Your task to perform on an android device: Open Youtube and go to "Your channel" Image 0: 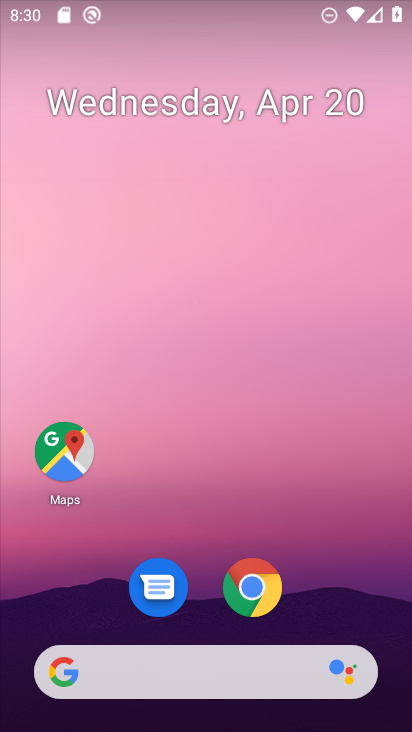
Step 0: drag from (350, 592) to (326, 97)
Your task to perform on an android device: Open Youtube and go to "Your channel" Image 1: 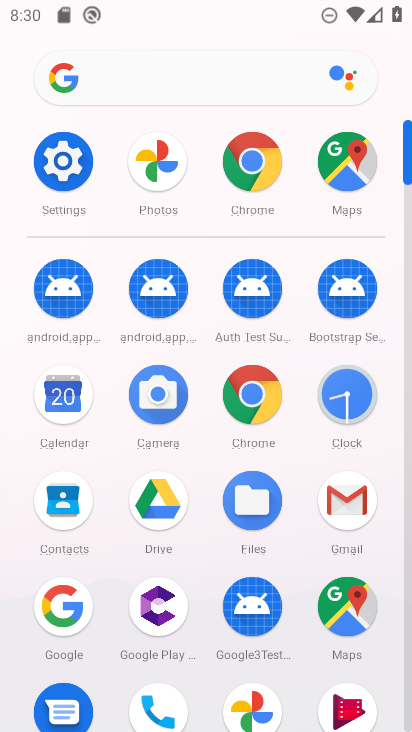
Step 1: click (409, 655)
Your task to perform on an android device: Open Youtube and go to "Your channel" Image 2: 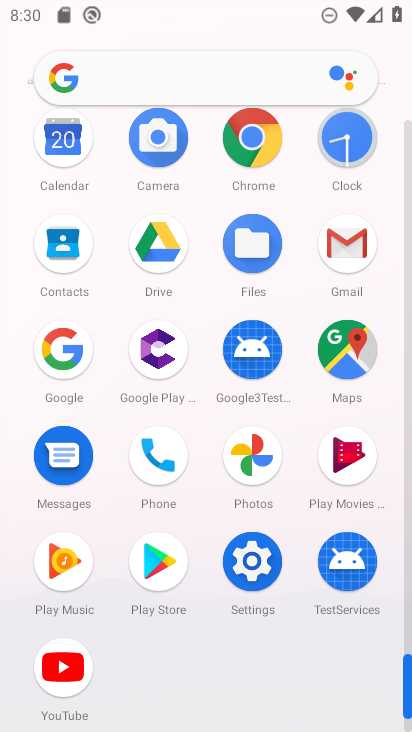
Step 2: click (65, 657)
Your task to perform on an android device: Open Youtube and go to "Your channel" Image 3: 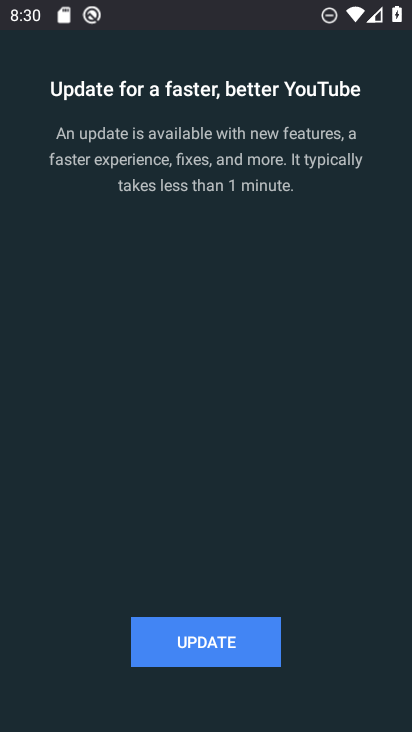
Step 3: click (215, 661)
Your task to perform on an android device: Open Youtube and go to "Your channel" Image 4: 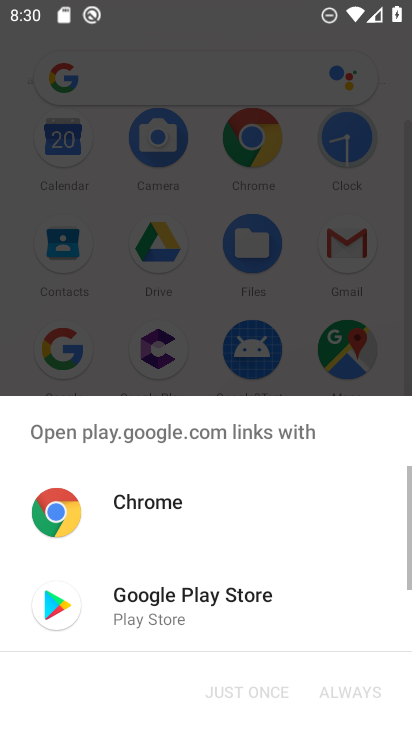
Step 4: click (250, 659)
Your task to perform on an android device: Open Youtube and go to "Your channel" Image 5: 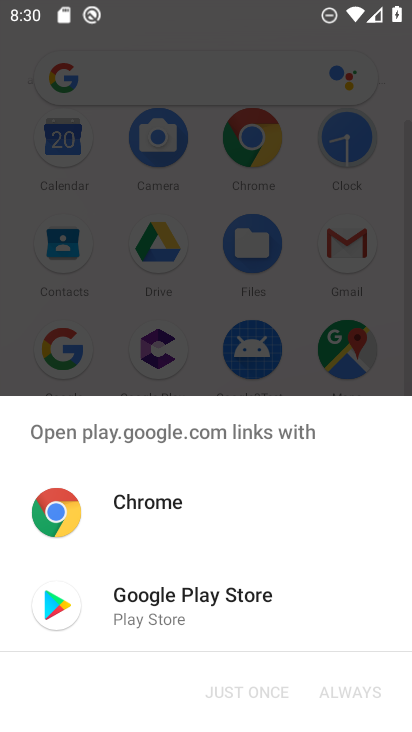
Step 5: click (193, 613)
Your task to perform on an android device: Open Youtube and go to "Your channel" Image 6: 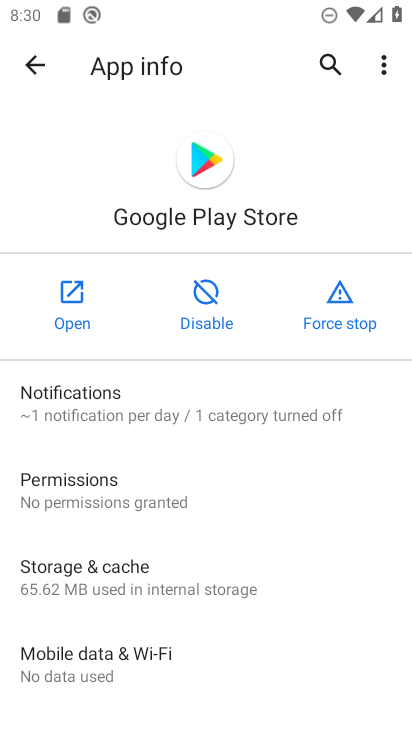
Step 6: click (42, 59)
Your task to perform on an android device: Open Youtube and go to "Your channel" Image 7: 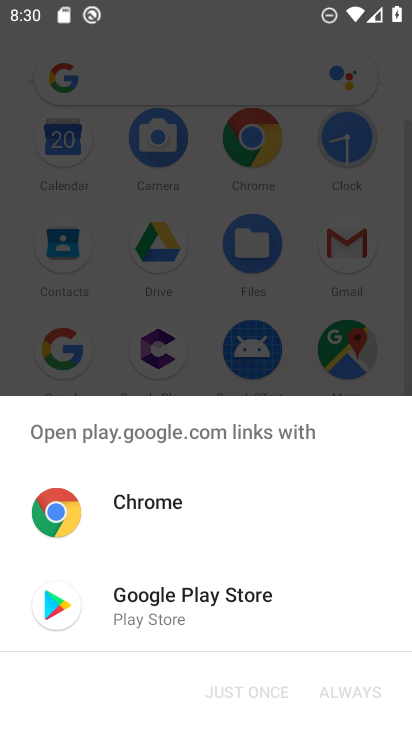
Step 7: click (139, 601)
Your task to perform on an android device: Open Youtube and go to "Your channel" Image 8: 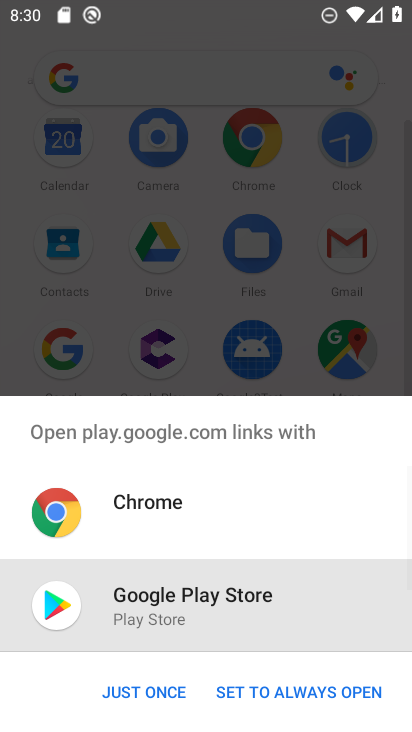
Step 8: click (139, 601)
Your task to perform on an android device: Open Youtube and go to "Your channel" Image 9: 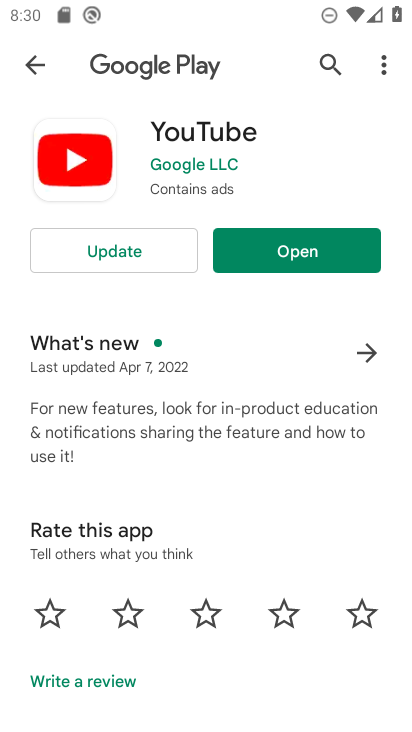
Step 9: click (107, 256)
Your task to perform on an android device: Open Youtube and go to "Your channel" Image 10: 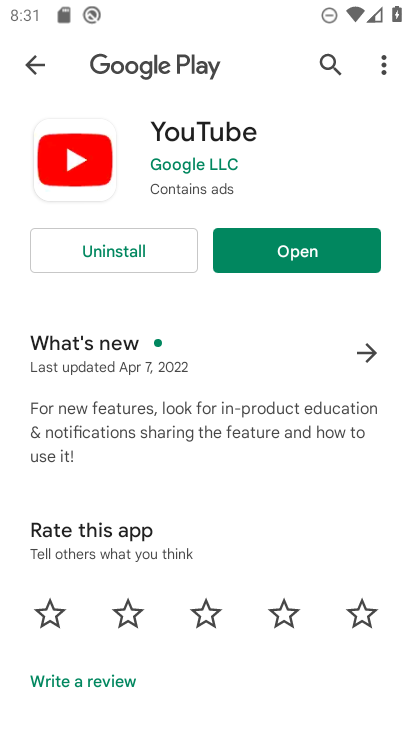
Step 10: click (228, 256)
Your task to perform on an android device: Open Youtube and go to "Your channel" Image 11: 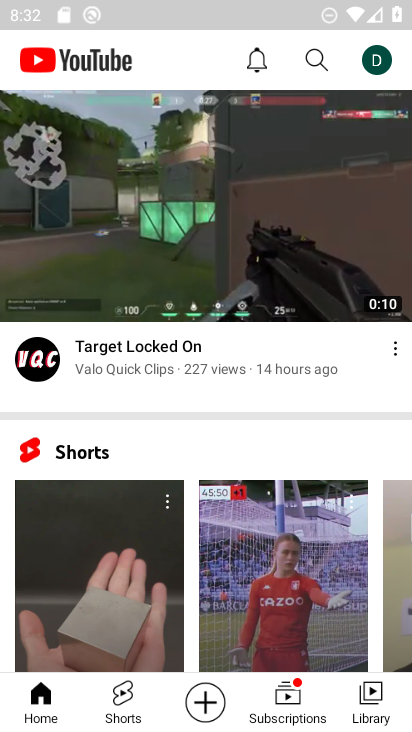
Step 11: click (352, 710)
Your task to perform on an android device: Open Youtube and go to "Your channel" Image 12: 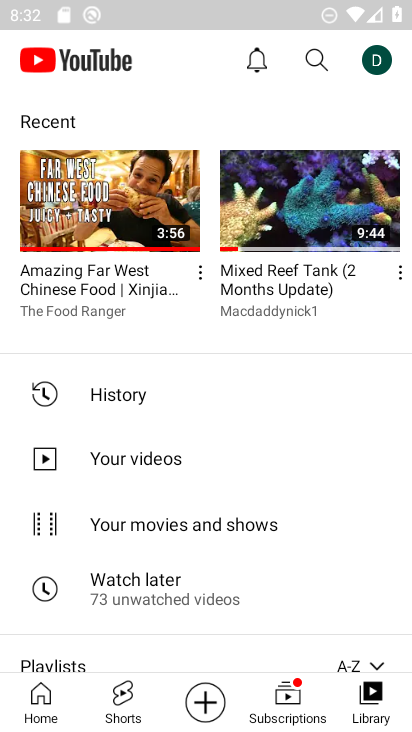
Step 12: click (380, 61)
Your task to perform on an android device: Open Youtube and go to "Your channel" Image 13: 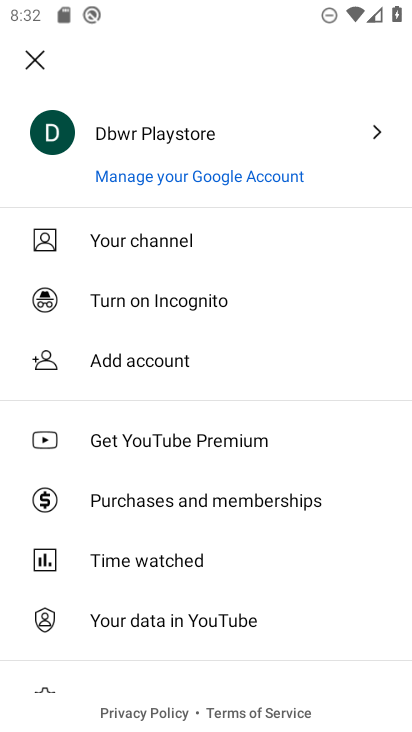
Step 13: click (267, 249)
Your task to perform on an android device: Open Youtube and go to "Your channel" Image 14: 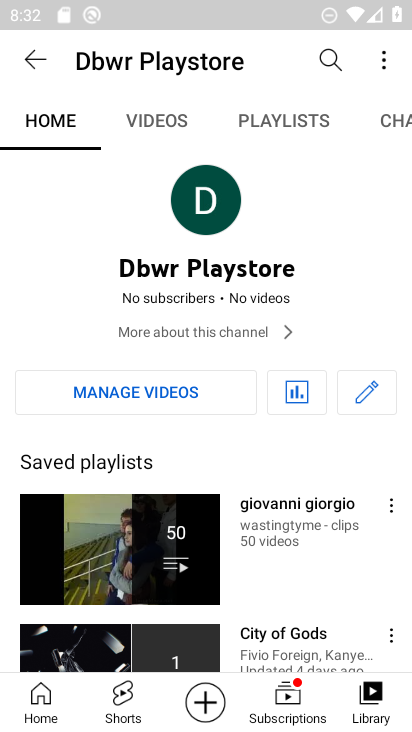
Step 14: task complete